Your task to perform on an android device: change keyboard looks Image 0: 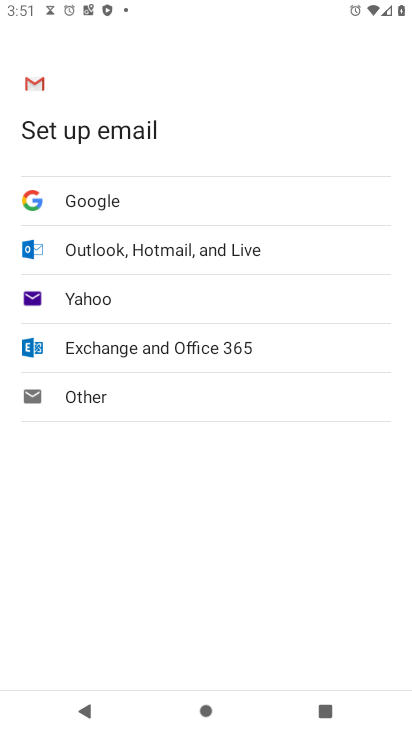
Step 0: press back button
Your task to perform on an android device: change keyboard looks Image 1: 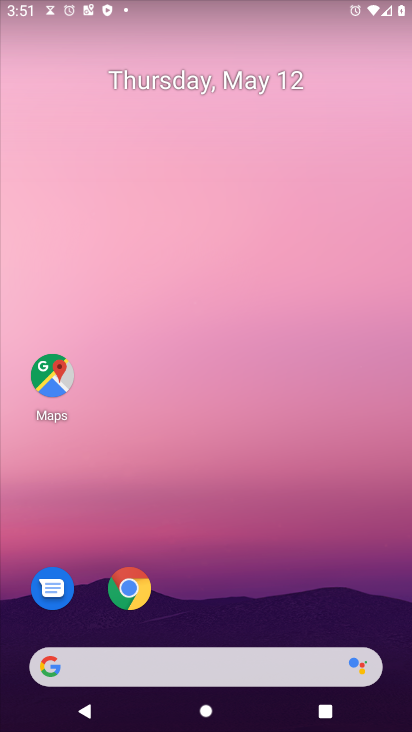
Step 1: drag from (262, 267) to (261, 5)
Your task to perform on an android device: change keyboard looks Image 2: 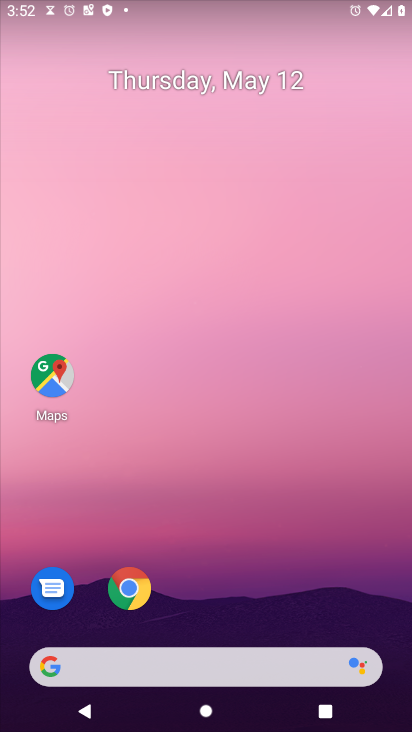
Step 2: drag from (396, 641) to (304, 15)
Your task to perform on an android device: change keyboard looks Image 3: 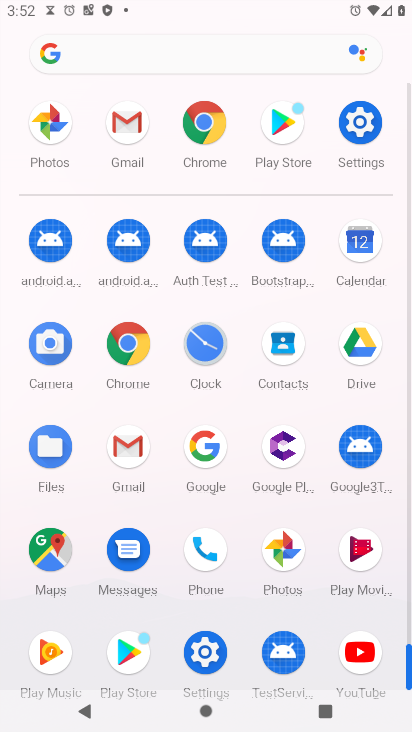
Step 3: click (205, 650)
Your task to perform on an android device: change keyboard looks Image 4: 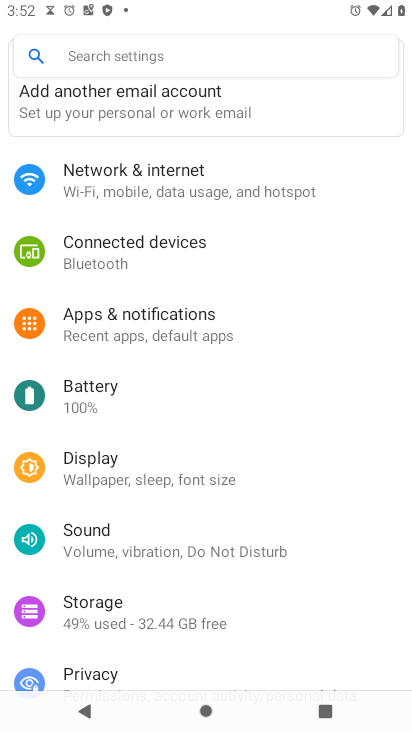
Step 4: drag from (320, 553) to (328, 188)
Your task to perform on an android device: change keyboard looks Image 5: 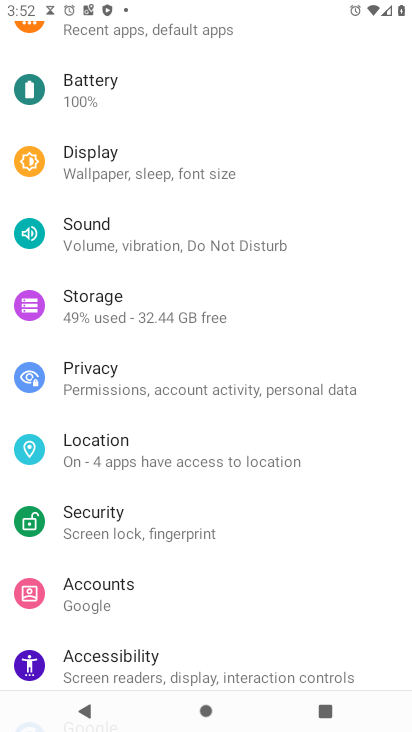
Step 5: drag from (282, 581) to (302, 144)
Your task to perform on an android device: change keyboard looks Image 6: 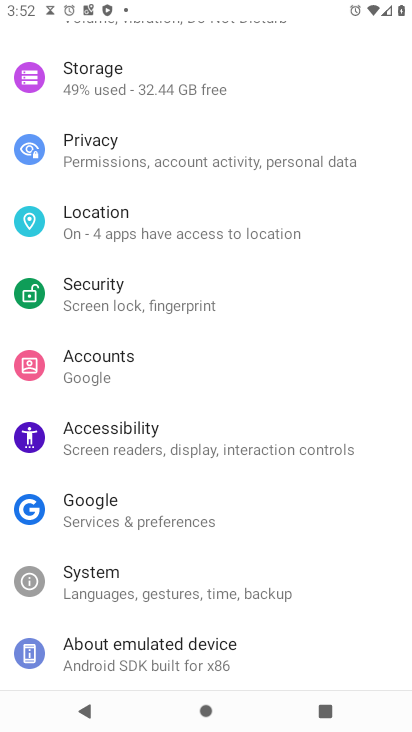
Step 6: click (137, 580)
Your task to perform on an android device: change keyboard looks Image 7: 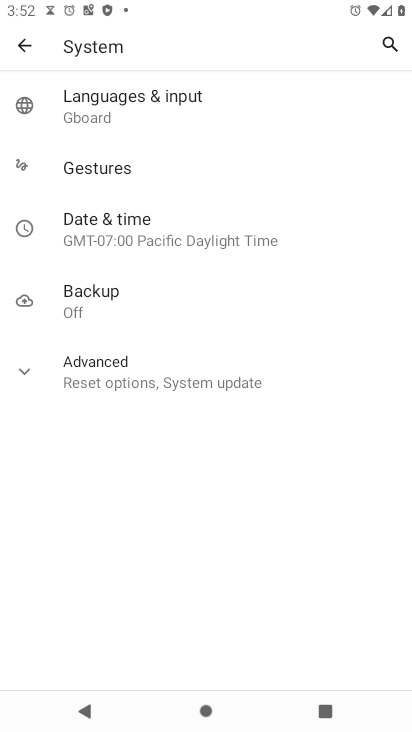
Step 7: click (123, 77)
Your task to perform on an android device: change keyboard looks Image 8: 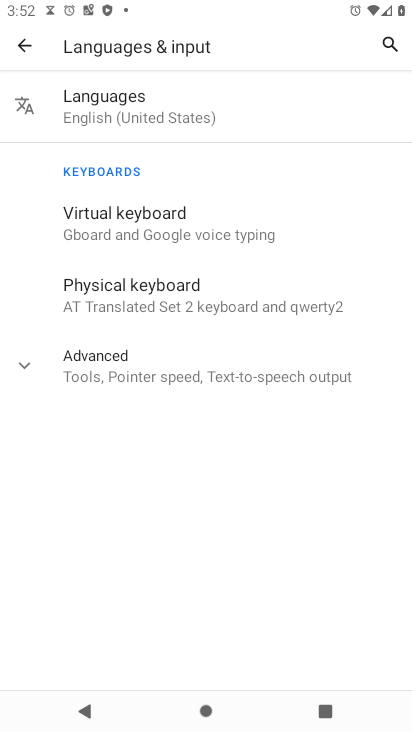
Step 8: click (166, 228)
Your task to perform on an android device: change keyboard looks Image 9: 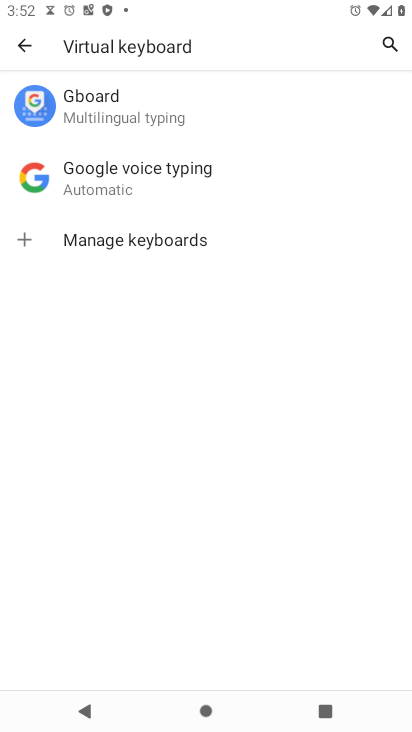
Step 9: click (168, 175)
Your task to perform on an android device: change keyboard looks Image 10: 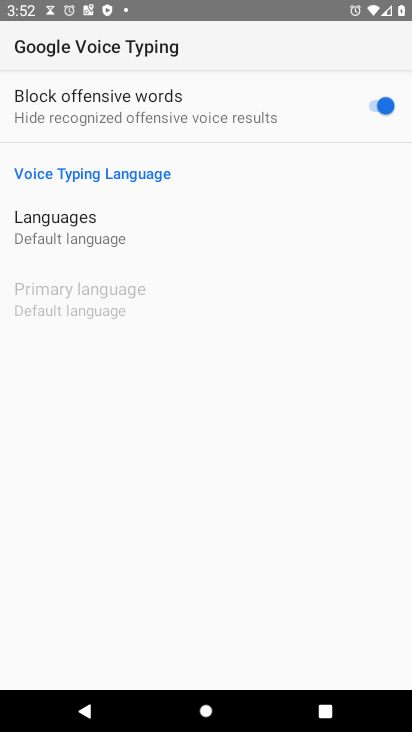
Step 10: click (87, 208)
Your task to perform on an android device: change keyboard looks Image 11: 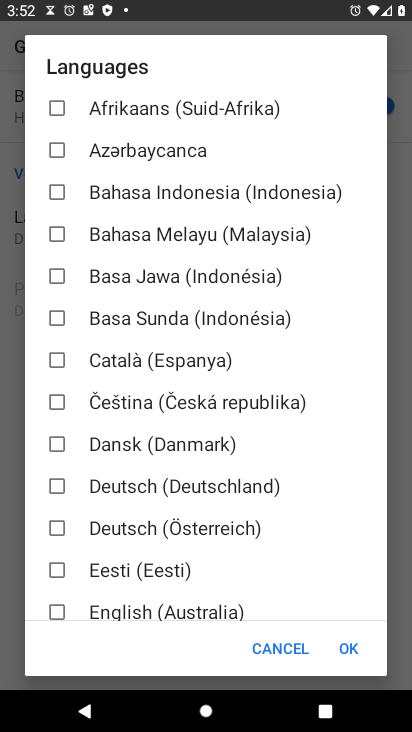
Step 11: press back button
Your task to perform on an android device: change keyboard looks Image 12: 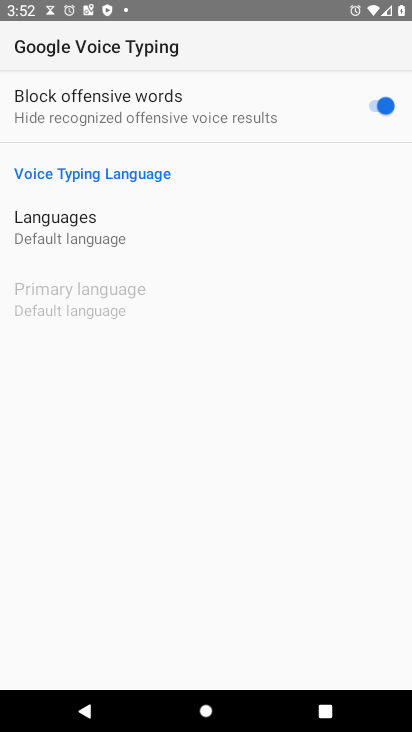
Step 12: press back button
Your task to perform on an android device: change keyboard looks Image 13: 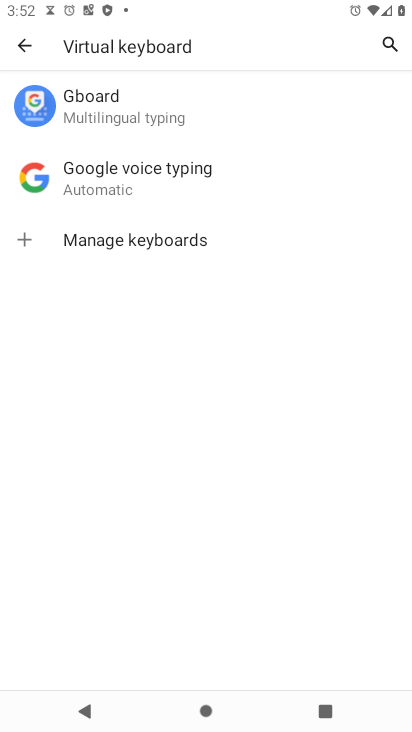
Step 13: click (153, 117)
Your task to perform on an android device: change keyboard looks Image 14: 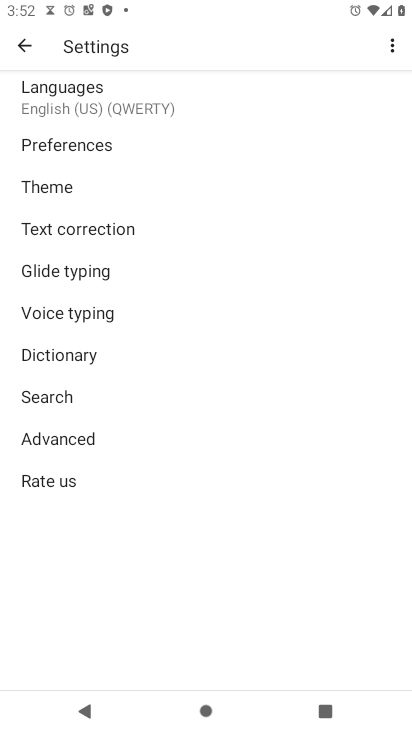
Step 14: click (102, 181)
Your task to perform on an android device: change keyboard looks Image 15: 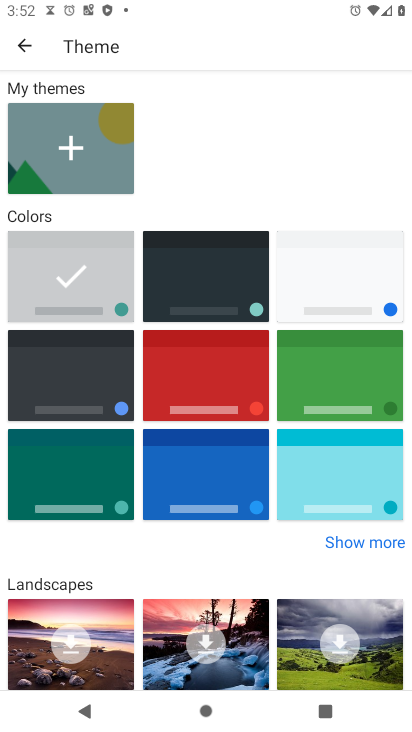
Step 15: click (203, 382)
Your task to perform on an android device: change keyboard looks Image 16: 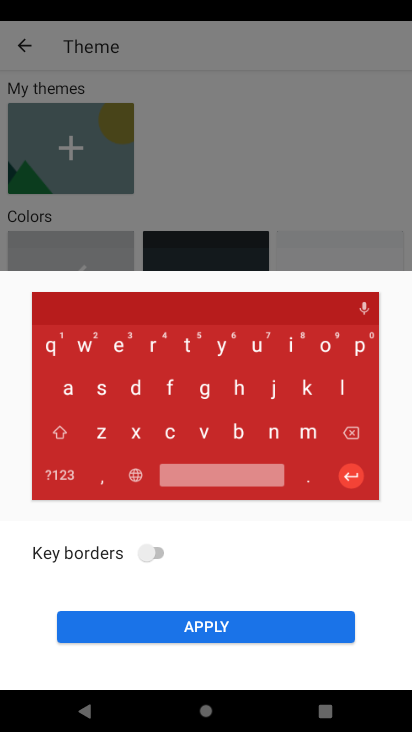
Step 16: click (271, 625)
Your task to perform on an android device: change keyboard looks Image 17: 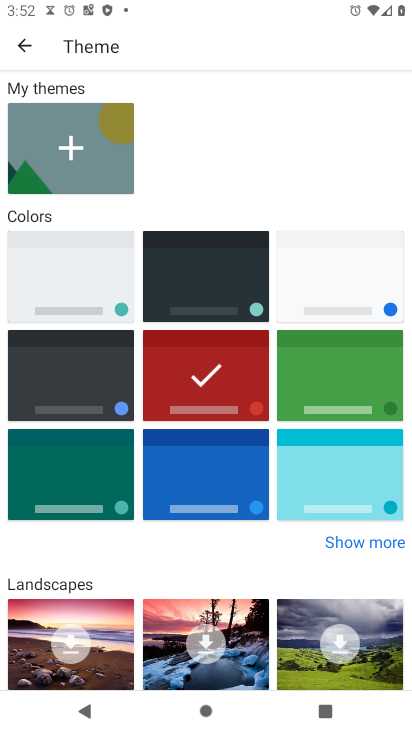
Step 17: task complete